Your task to perform on an android device: Go to CNN.com Image 0: 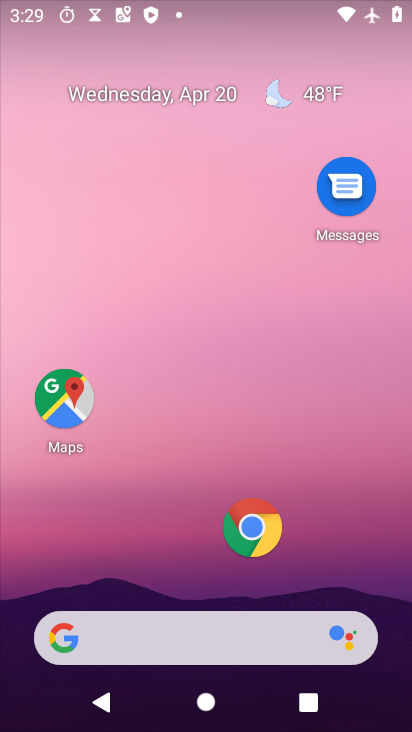
Step 0: drag from (198, 527) to (311, 69)
Your task to perform on an android device: Go to CNN.com Image 1: 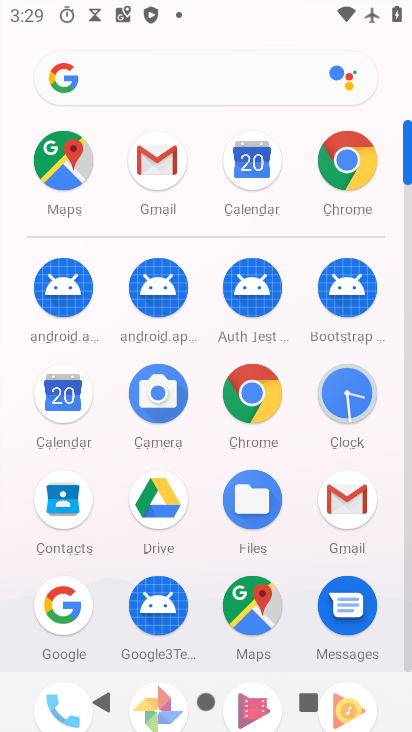
Step 1: click (344, 175)
Your task to perform on an android device: Go to CNN.com Image 2: 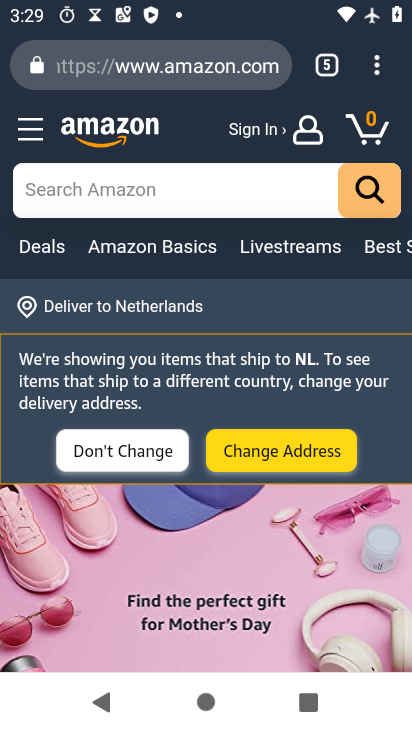
Step 2: click (371, 78)
Your task to perform on an android device: Go to CNN.com Image 3: 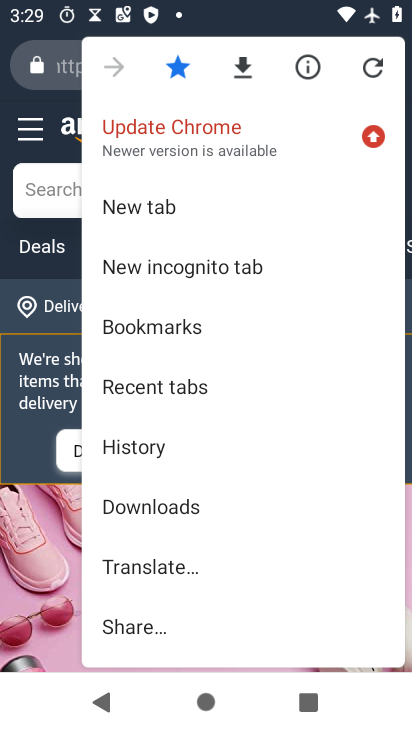
Step 3: click (149, 206)
Your task to perform on an android device: Go to CNN.com Image 4: 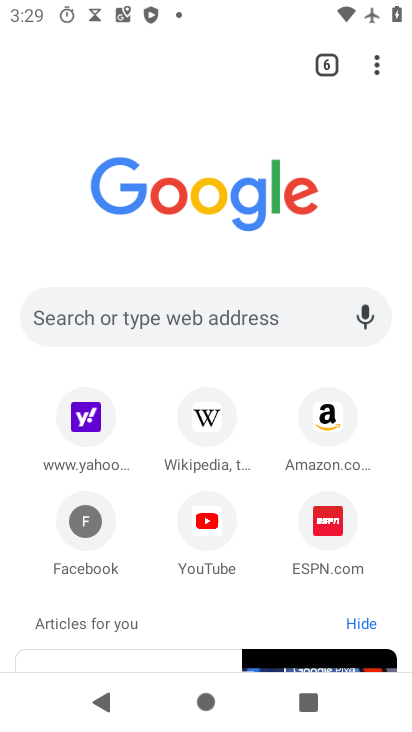
Step 4: click (121, 306)
Your task to perform on an android device: Go to CNN.com Image 5: 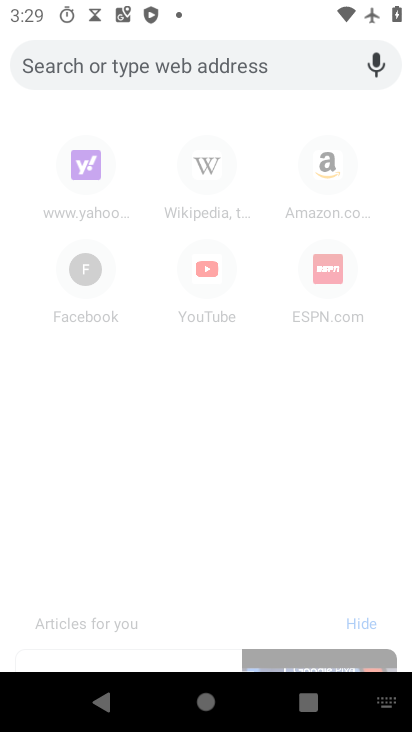
Step 5: type "cnn.com"
Your task to perform on an android device: Go to CNN.com Image 6: 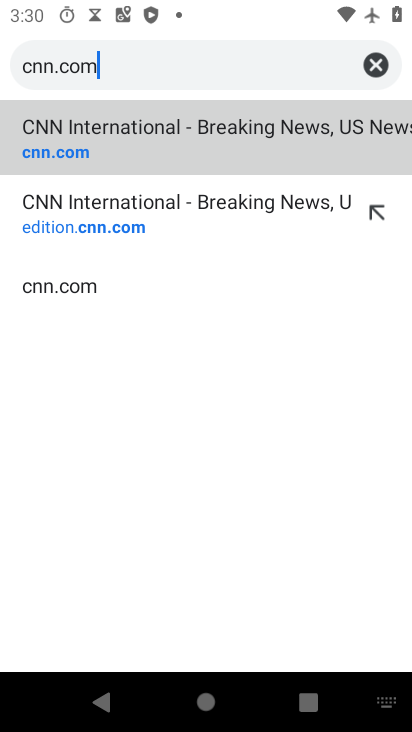
Step 6: click (38, 294)
Your task to perform on an android device: Go to CNN.com Image 7: 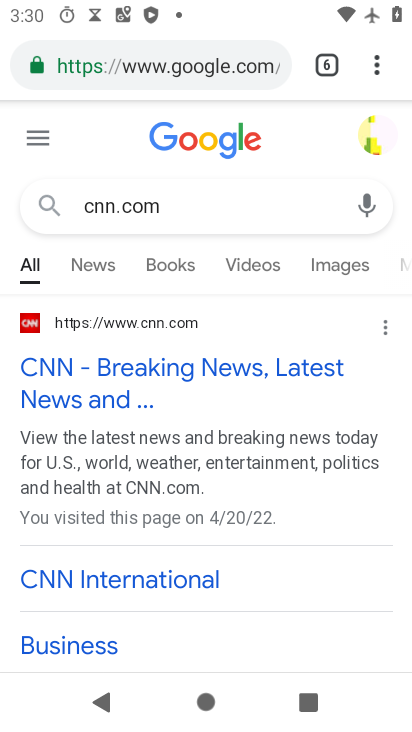
Step 7: click (150, 367)
Your task to perform on an android device: Go to CNN.com Image 8: 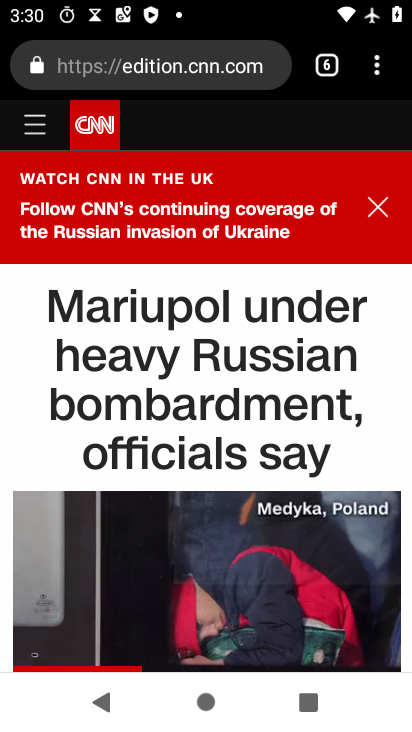
Step 8: task complete